Your task to perform on an android device: Open the web browser Image 0: 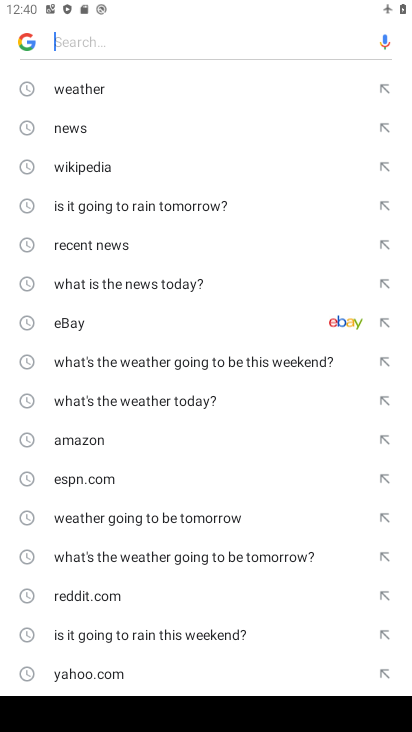
Step 0: press home button
Your task to perform on an android device: Open the web browser Image 1: 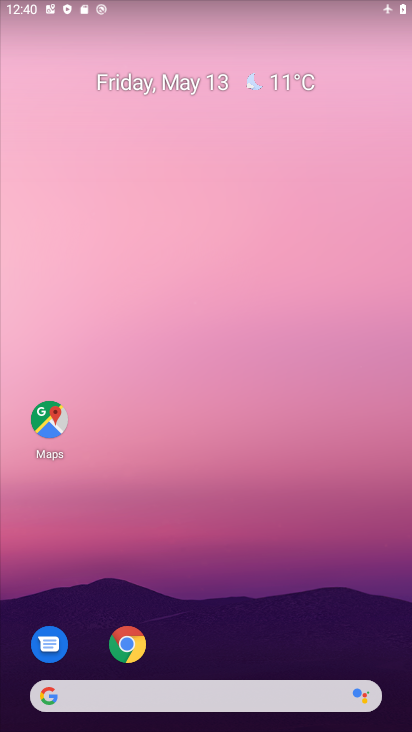
Step 1: click (125, 644)
Your task to perform on an android device: Open the web browser Image 2: 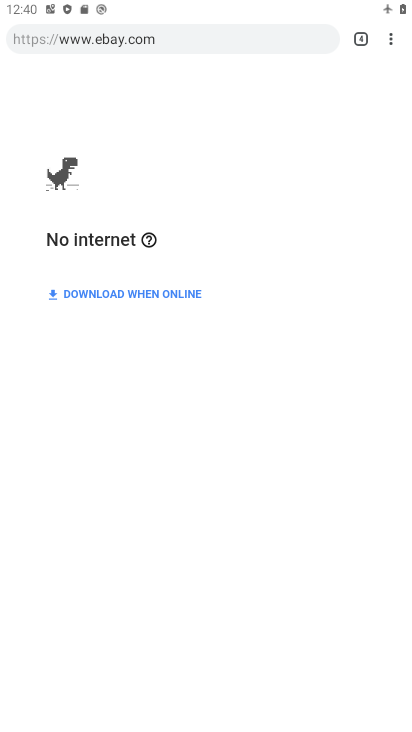
Step 2: task complete